Your task to perform on an android device: turn on translation in the chrome app Image 0: 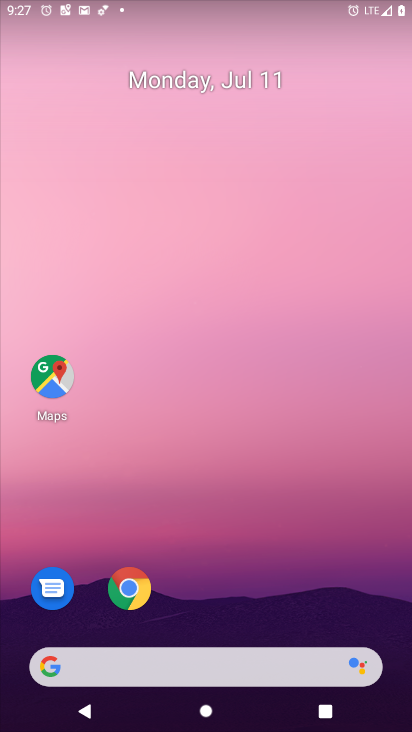
Step 0: press home button
Your task to perform on an android device: turn on translation in the chrome app Image 1: 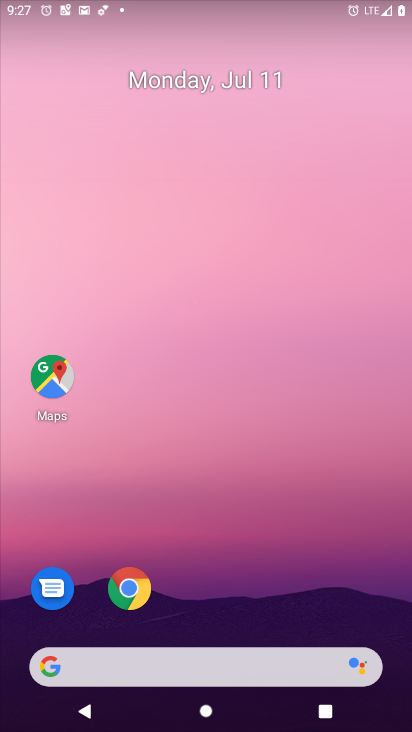
Step 1: click (134, 580)
Your task to perform on an android device: turn on translation in the chrome app Image 2: 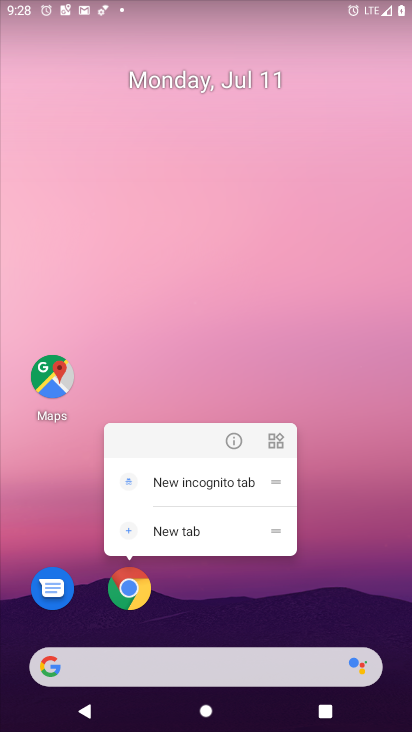
Step 2: click (134, 580)
Your task to perform on an android device: turn on translation in the chrome app Image 3: 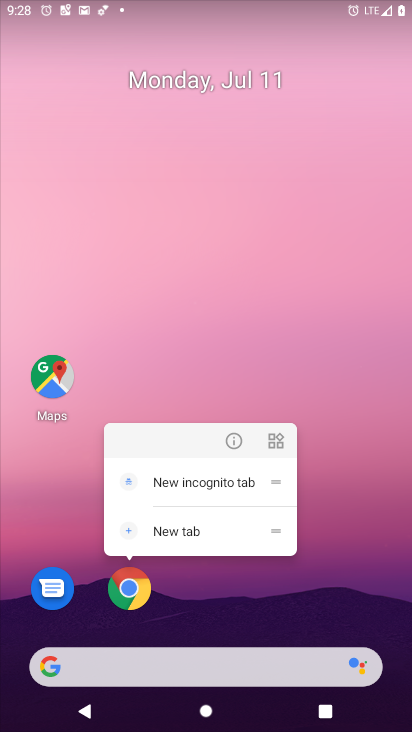
Step 3: click (130, 596)
Your task to perform on an android device: turn on translation in the chrome app Image 4: 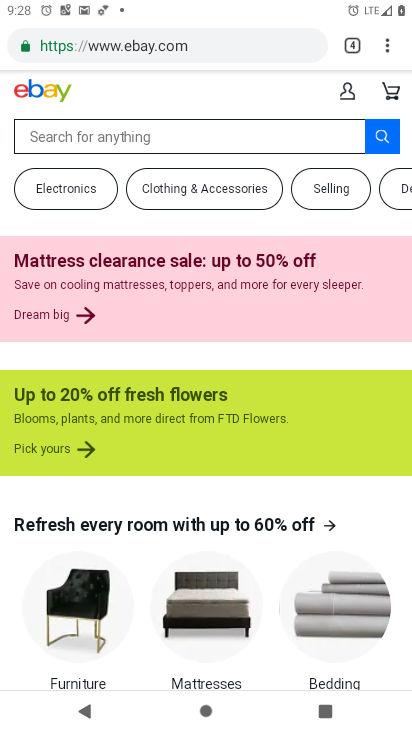
Step 4: drag from (388, 37) to (266, 597)
Your task to perform on an android device: turn on translation in the chrome app Image 5: 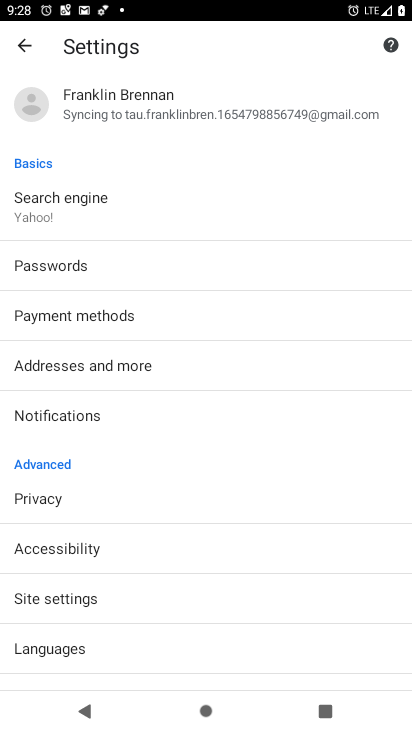
Step 5: click (79, 655)
Your task to perform on an android device: turn on translation in the chrome app Image 6: 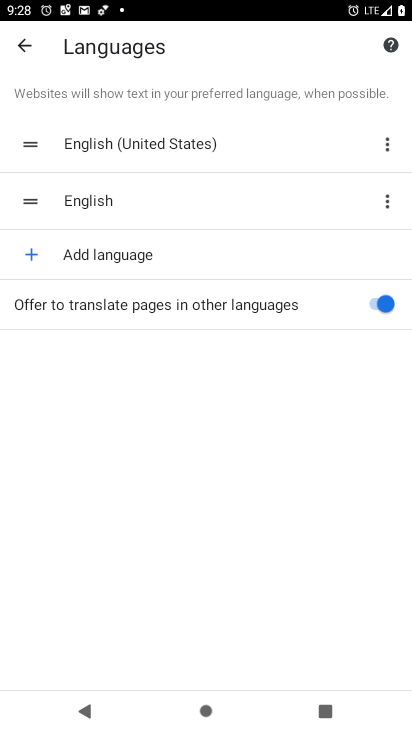
Step 6: task complete